Your task to perform on an android device: Open notification settings Image 0: 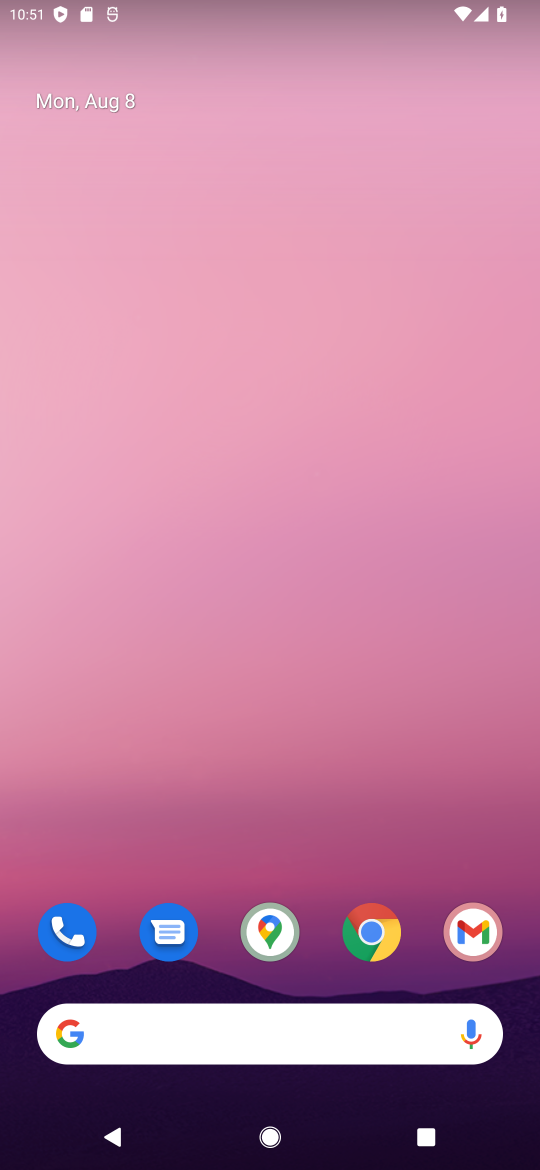
Step 0: drag from (148, 871) to (363, 21)
Your task to perform on an android device: Open notification settings Image 1: 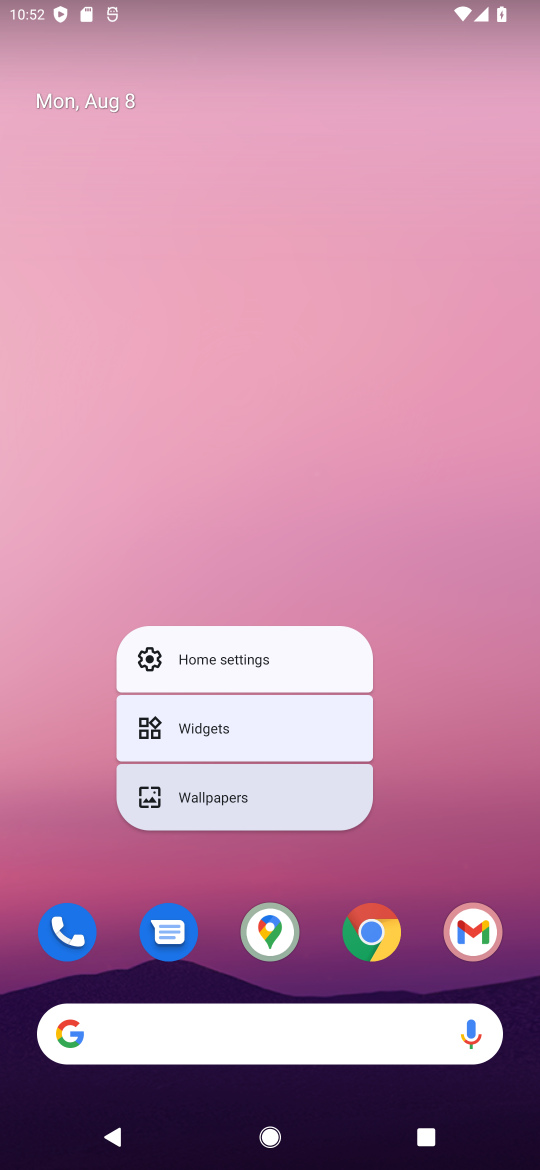
Step 1: click (428, 475)
Your task to perform on an android device: Open notification settings Image 2: 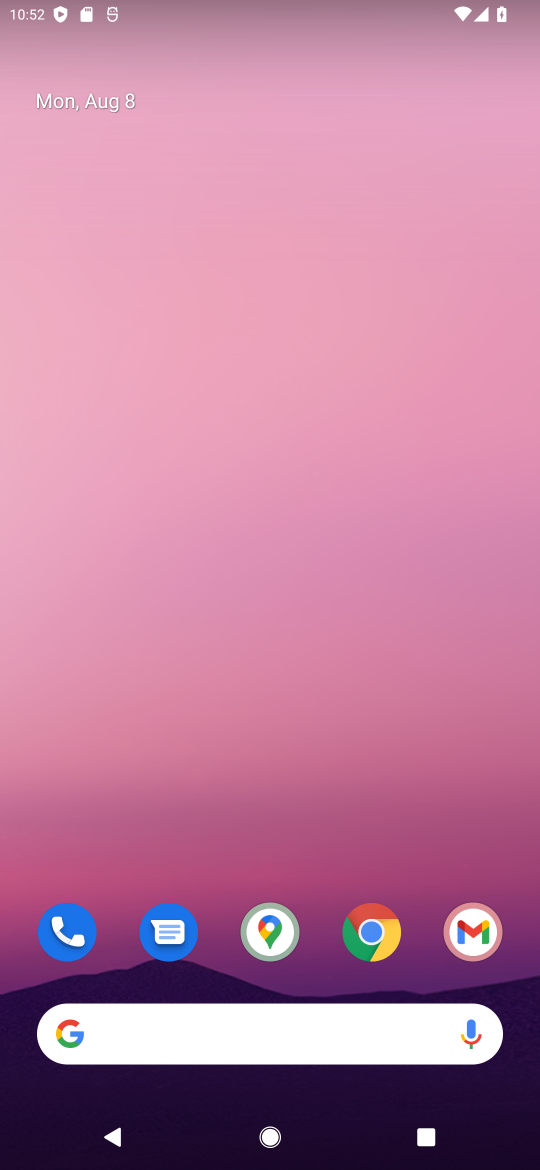
Step 2: drag from (215, 855) to (267, 63)
Your task to perform on an android device: Open notification settings Image 3: 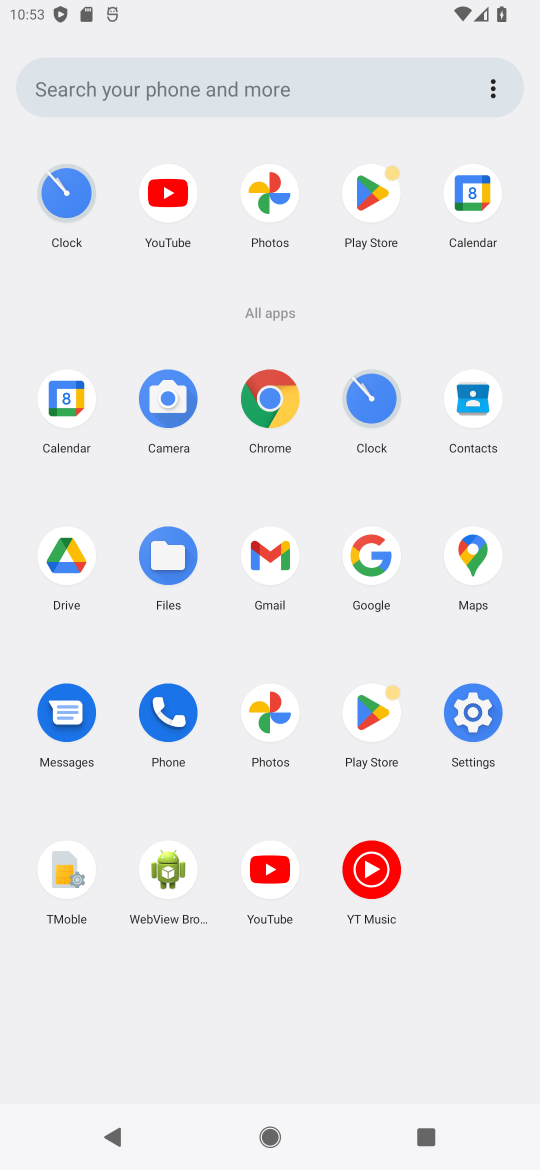
Step 3: click (483, 719)
Your task to perform on an android device: Open notification settings Image 4: 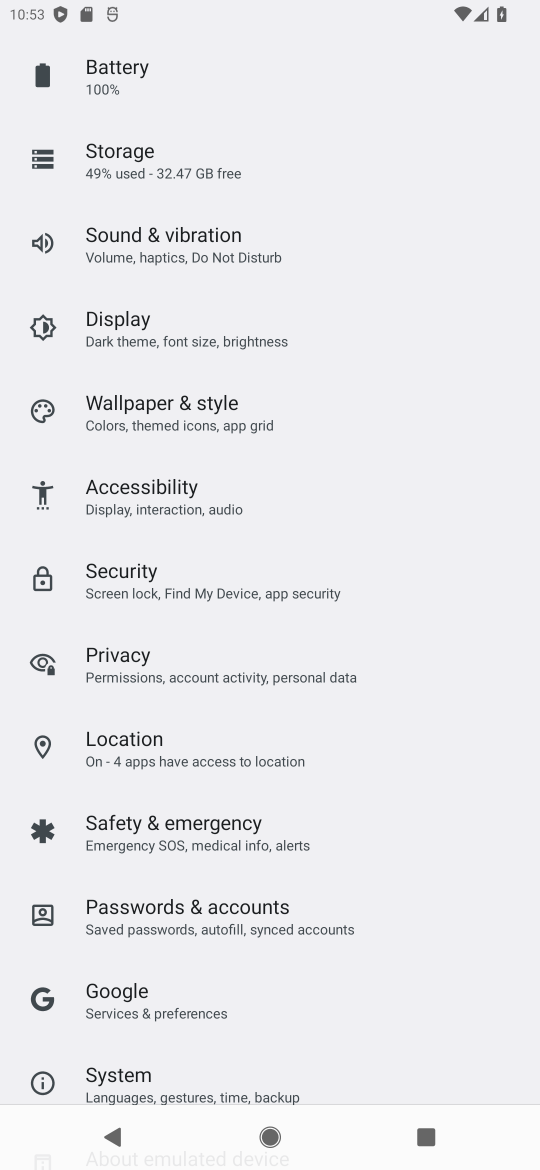
Step 4: drag from (157, 109) to (310, 784)
Your task to perform on an android device: Open notification settings Image 5: 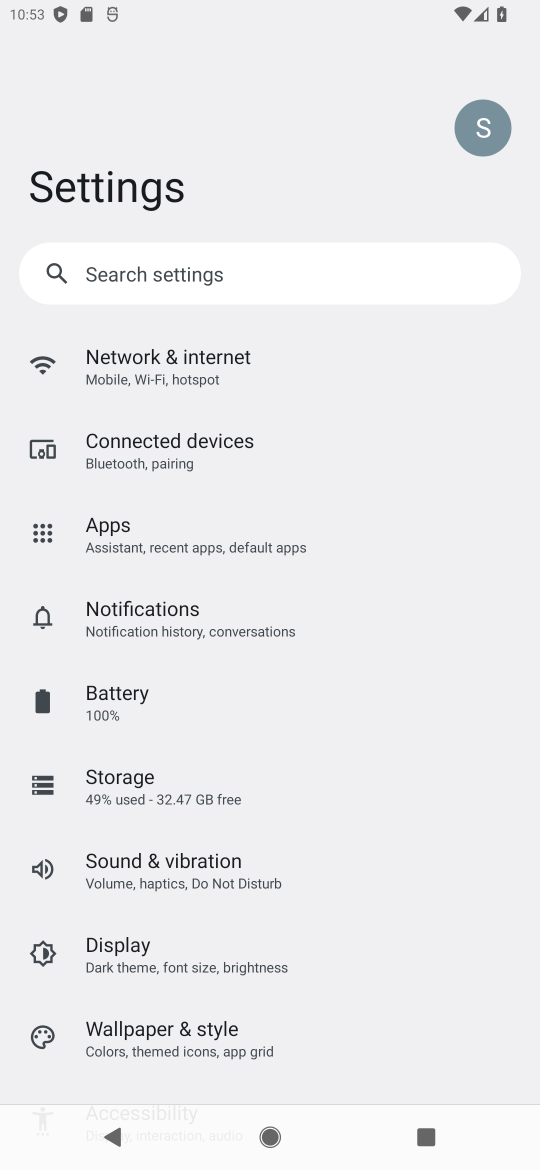
Step 5: click (180, 611)
Your task to perform on an android device: Open notification settings Image 6: 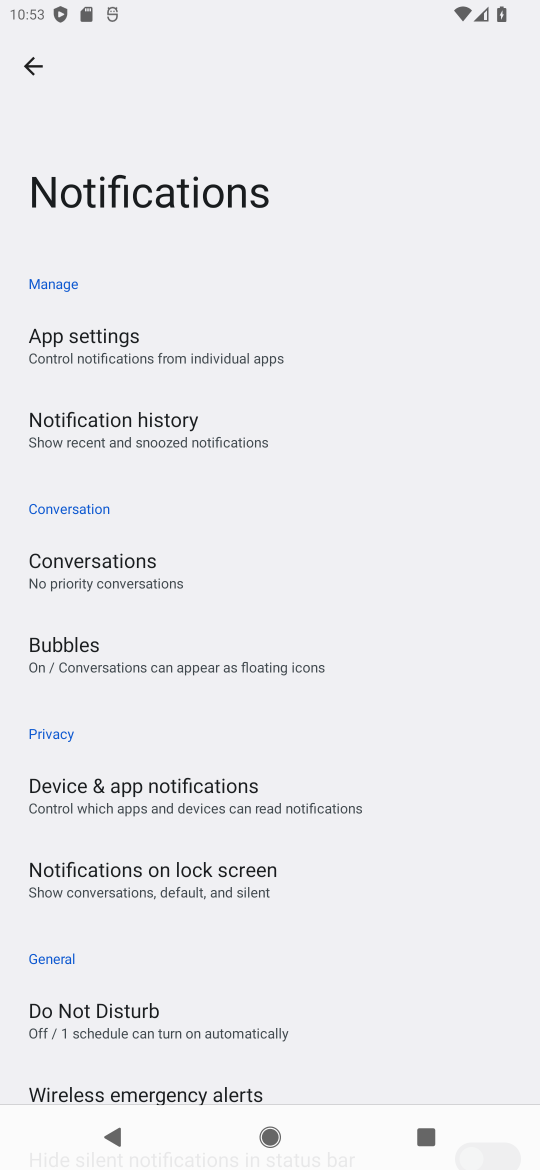
Step 6: task complete